Your task to perform on an android device: toggle data saver in the chrome app Image 0: 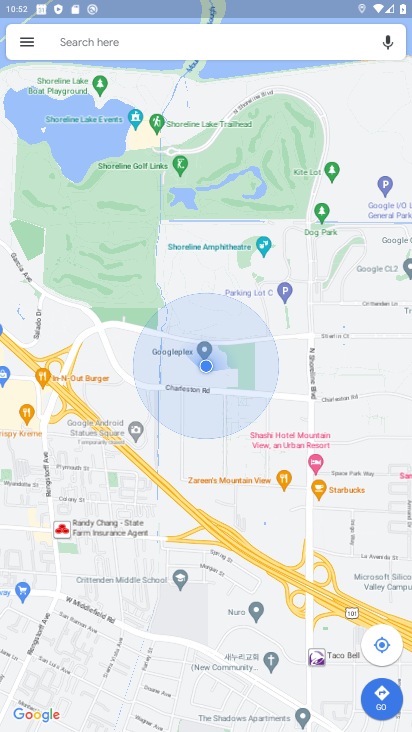
Step 0: press home button
Your task to perform on an android device: toggle data saver in the chrome app Image 1: 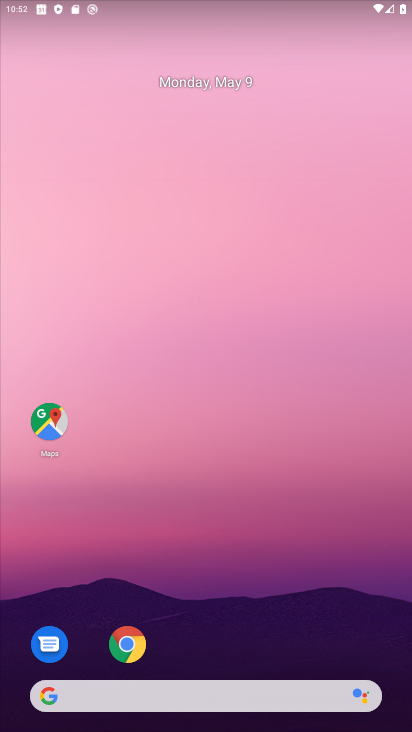
Step 1: click (125, 625)
Your task to perform on an android device: toggle data saver in the chrome app Image 2: 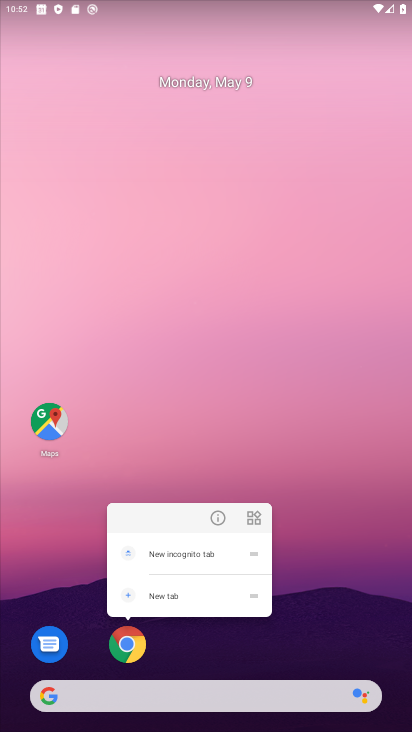
Step 2: click (131, 647)
Your task to perform on an android device: toggle data saver in the chrome app Image 3: 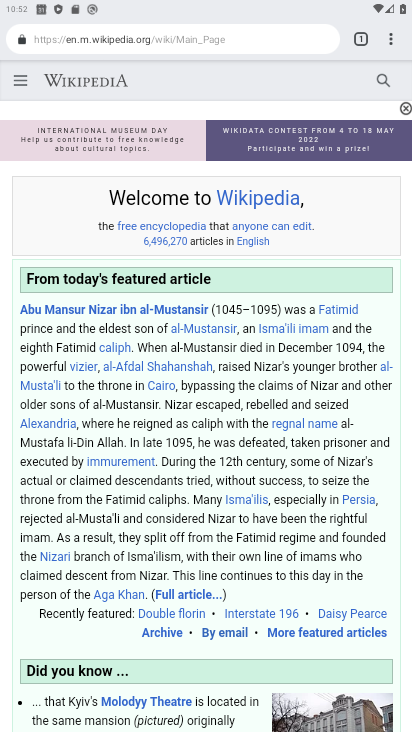
Step 3: click (388, 40)
Your task to perform on an android device: toggle data saver in the chrome app Image 4: 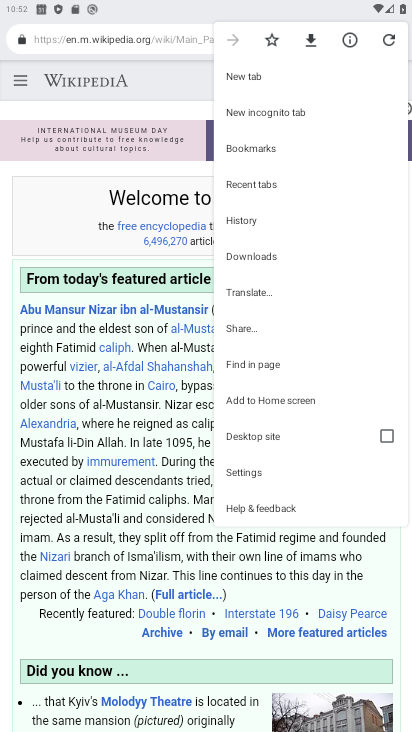
Step 4: click (252, 472)
Your task to perform on an android device: toggle data saver in the chrome app Image 5: 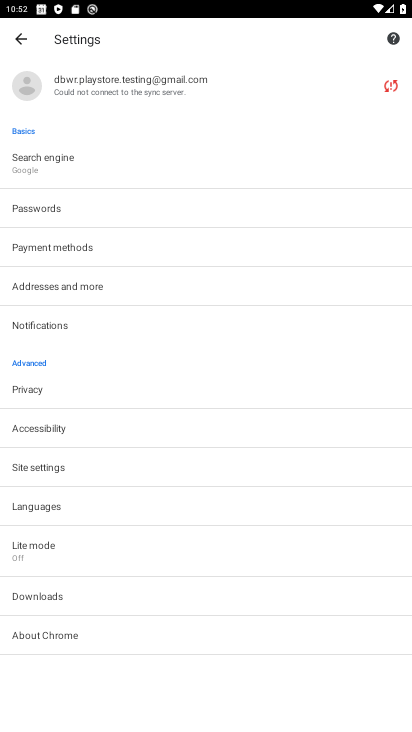
Step 5: click (62, 543)
Your task to perform on an android device: toggle data saver in the chrome app Image 6: 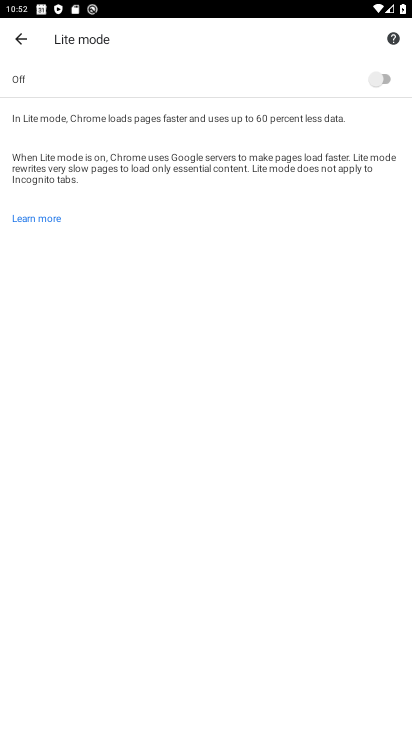
Step 6: click (386, 75)
Your task to perform on an android device: toggle data saver in the chrome app Image 7: 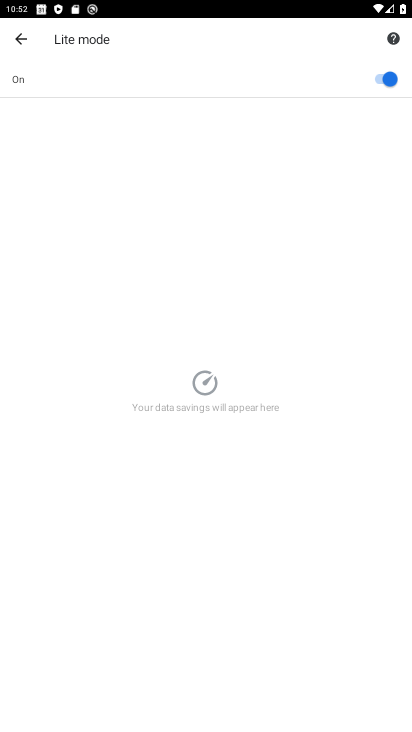
Step 7: task complete